Your task to perform on an android device: Go to battery settings Image 0: 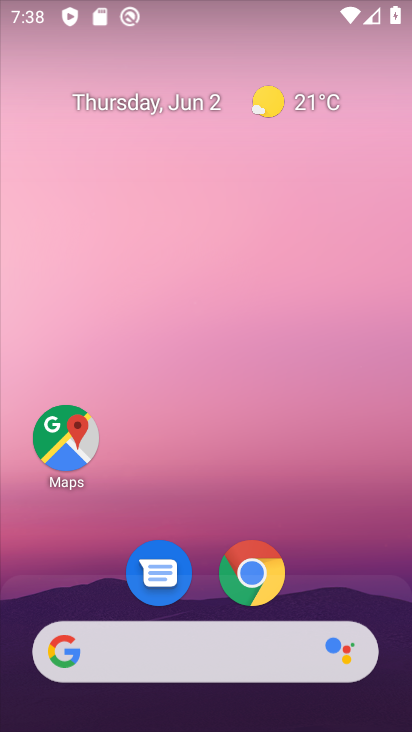
Step 0: drag from (315, 587) to (282, 55)
Your task to perform on an android device: Go to battery settings Image 1: 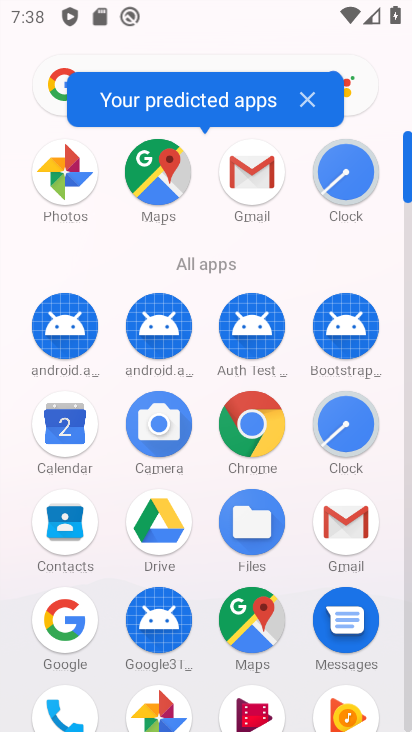
Step 1: drag from (203, 663) to (198, 196)
Your task to perform on an android device: Go to battery settings Image 2: 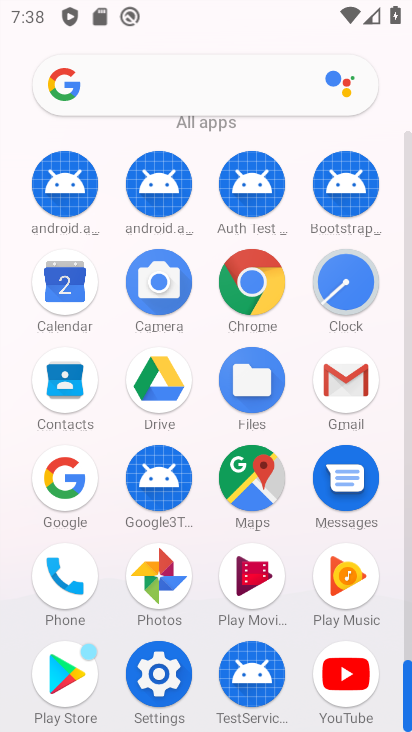
Step 2: click (157, 670)
Your task to perform on an android device: Go to battery settings Image 3: 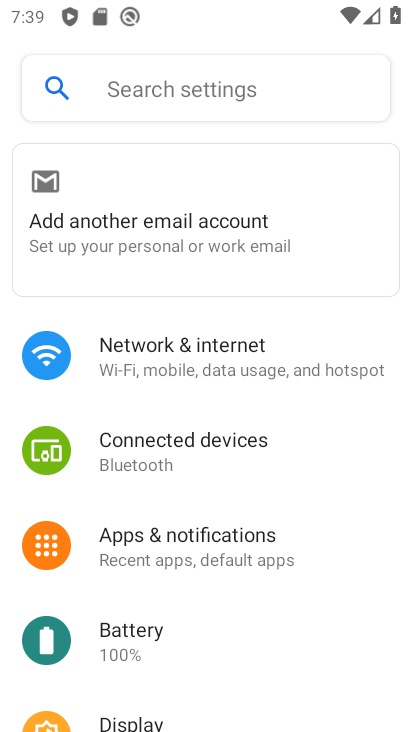
Step 3: click (144, 652)
Your task to perform on an android device: Go to battery settings Image 4: 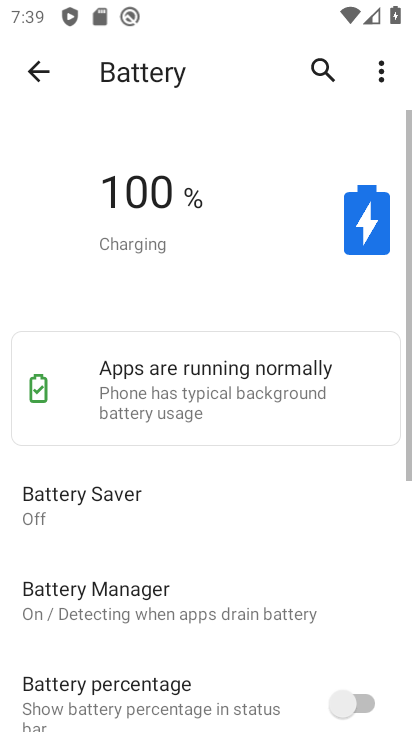
Step 4: task complete